Your task to perform on an android device: toggle location history Image 0: 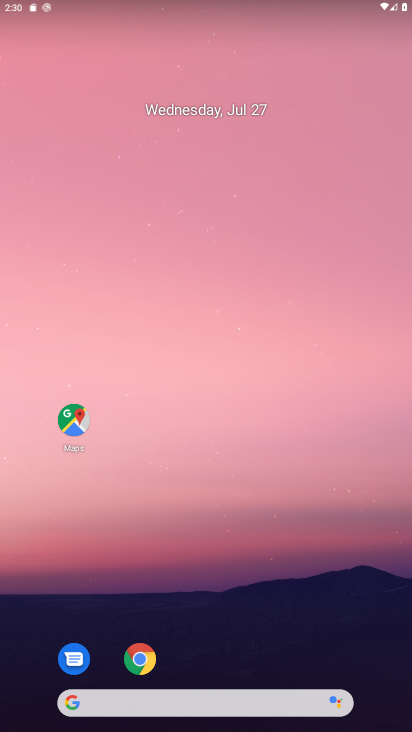
Step 0: drag from (253, 687) to (208, 8)
Your task to perform on an android device: toggle location history Image 1: 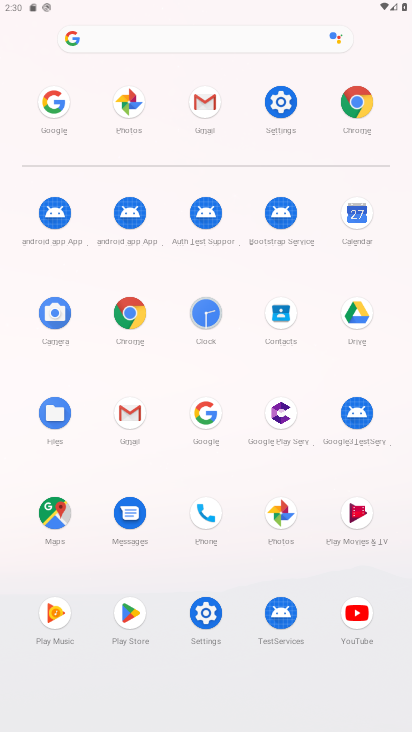
Step 1: click (277, 111)
Your task to perform on an android device: toggle location history Image 2: 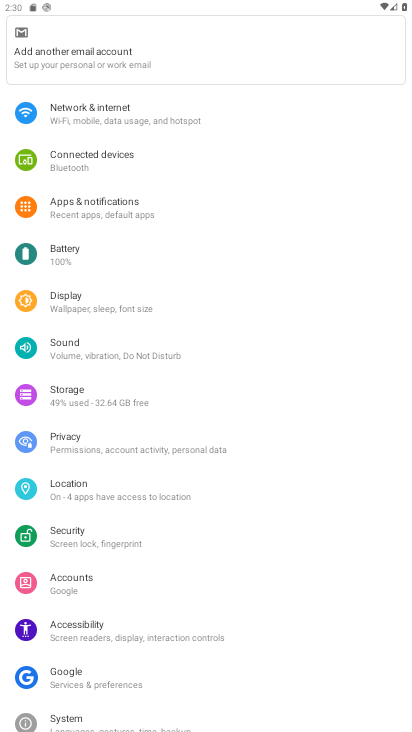
Step 2: click (56, 478)
Your task to perform on an android device: toggle location history Image 3: 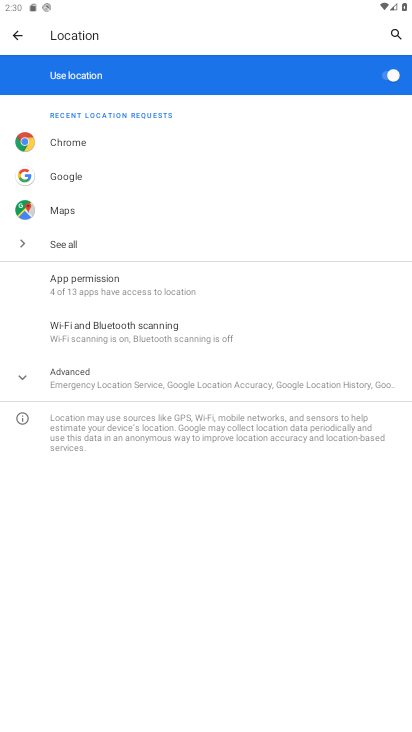
Step 3: click (82, 365)
Your task to perform on an android device: toggle location history Image 4: 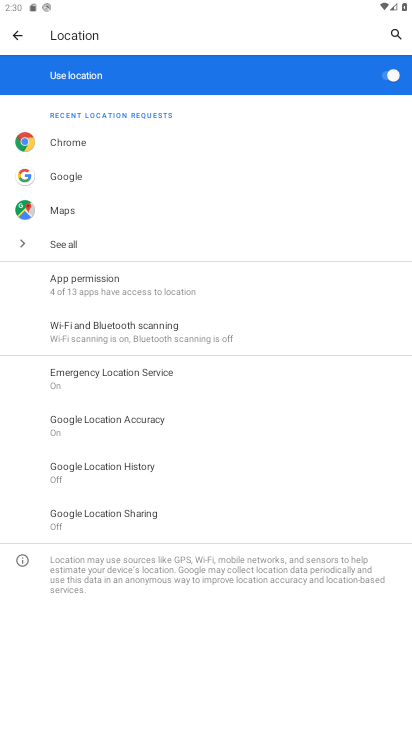
Step 4: click (110, 462)
Your task to perform on an android device: toggle location history Image 5: 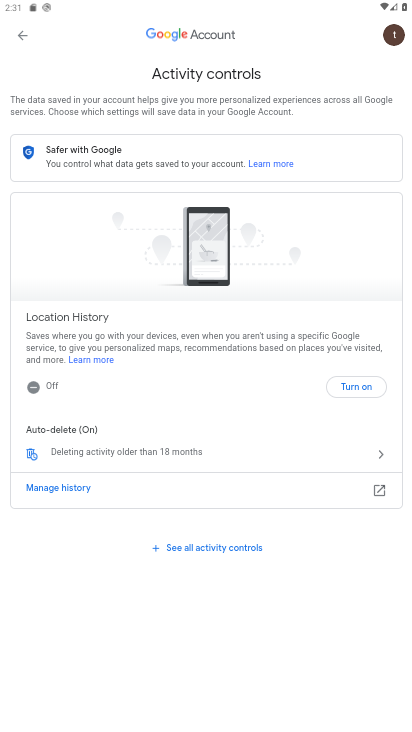
Step 5: click (353, 383)
Your task to perform on an android device: toggle location history Image 6: 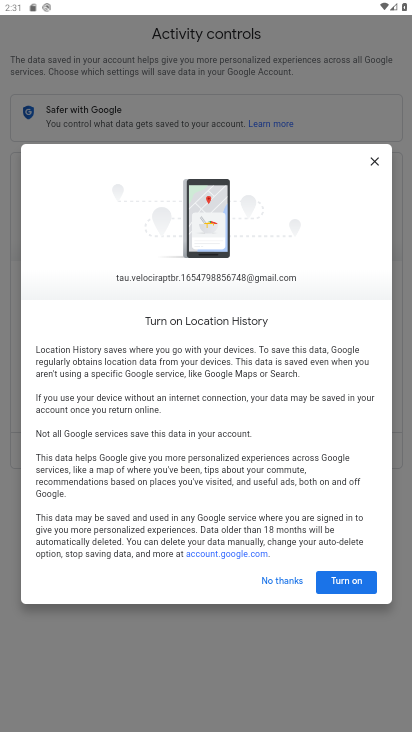
Step 6: click (348, 579)
Your task to perform on an android device: toggle location history Image 7: 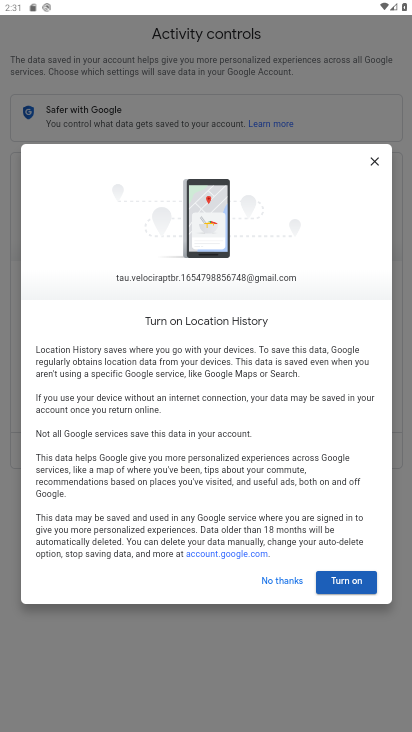
Step 7: click (328, 588)
Your task to perform on an android device: toggle location history Image 8: 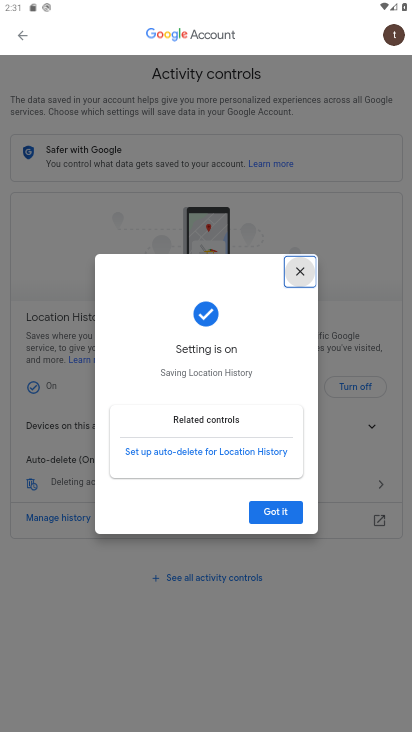
Step 8: click (281, 514)
Your task to perform on an android device: toggle location history Image 9: 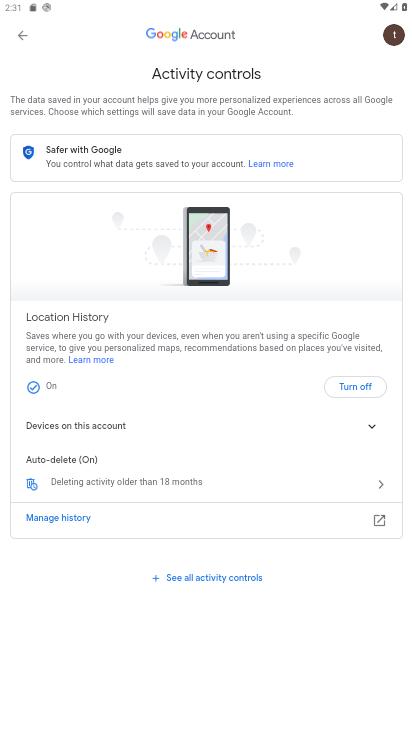
Step 9: task complete